Your task to perform on an android device: empty trash in the gmail app Image 0: 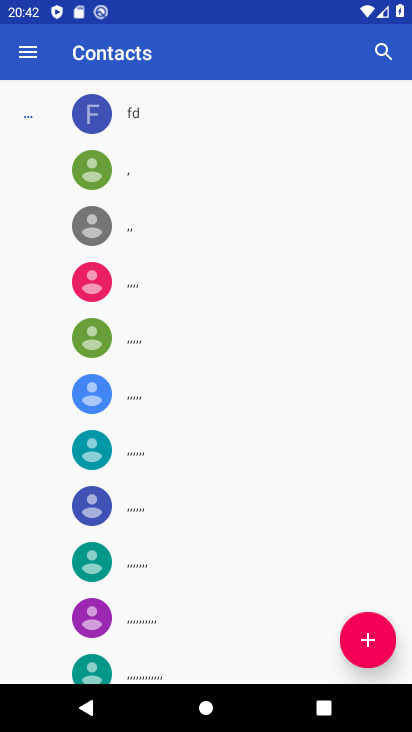
Step 0: press home button
Your task to perform on an android device: empty trash in the gmail app Image 1: 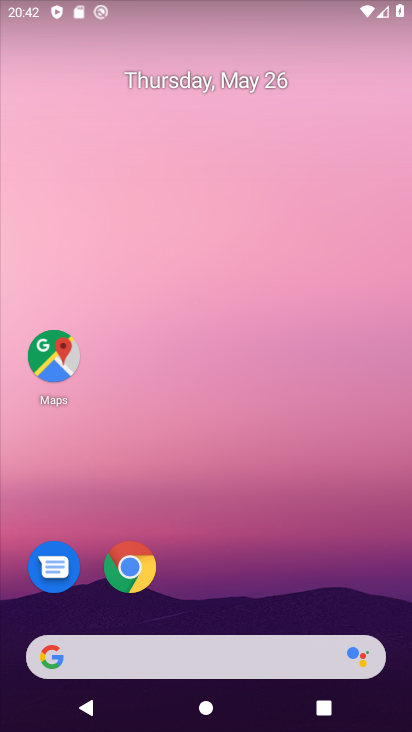
Step 1: drag from (228, 580) to (255, 61)
Your task to perform on an android device: empty trash in the gmail app Image 2: 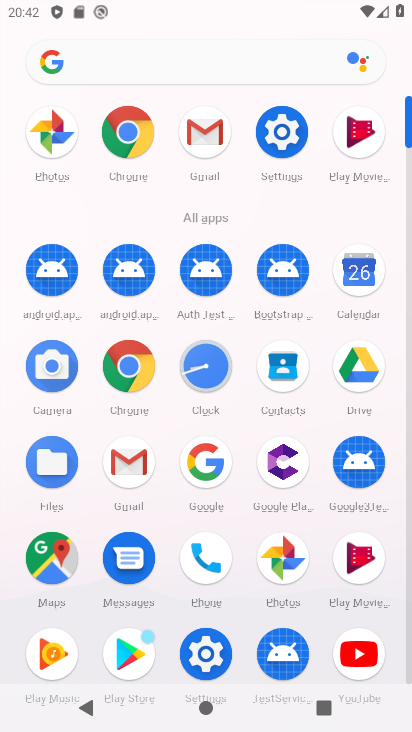
Step 2: click (130, 463)
Your task to perform on an android device: empty trash in the gmail app Image 3: 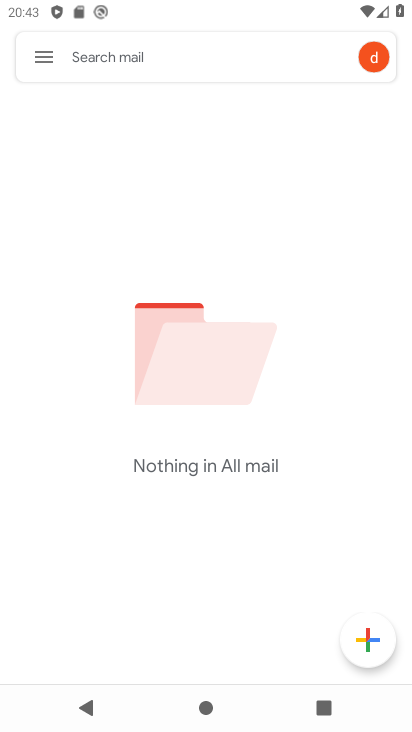
Step 3: click (47, 54)
Your task to perform on an android device: empty trash in the gmail app Image 4: 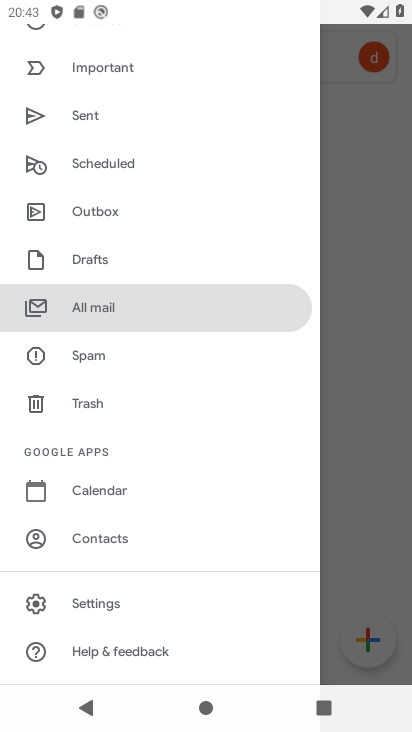
Step 4: click (98, 403)
Your task to perform on an android device: empty trash in the gmail app Image 5: 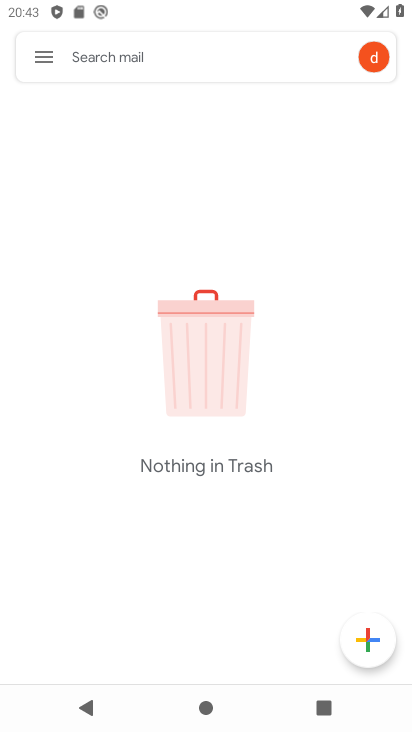
Step 5: task complete